Your task to perform on an android device: turn on translation in the chrome app Image 0: 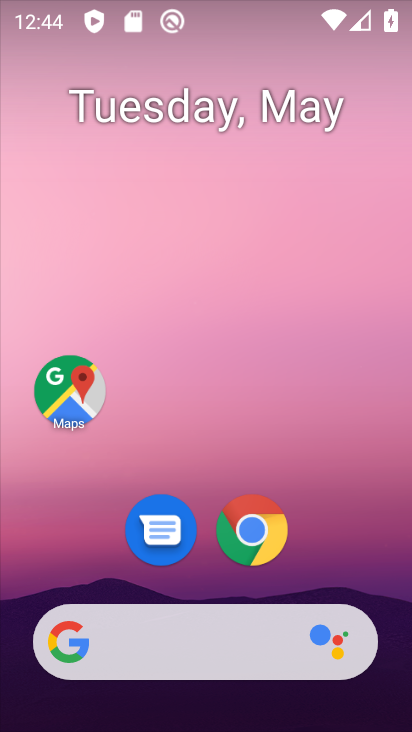
Step 0: click (234, 526)
Your task to perform on an android device: turn on translation in the chrome app Image 1: 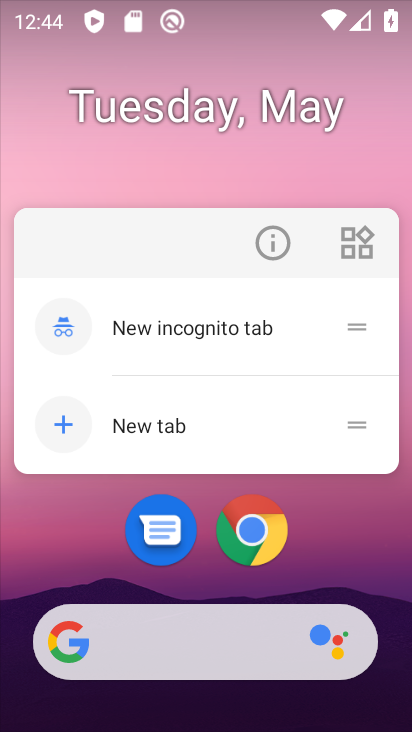
Step 1: click (244, 538)
Your task to perform on an android device: turn on translation in the chrome app Image 2: 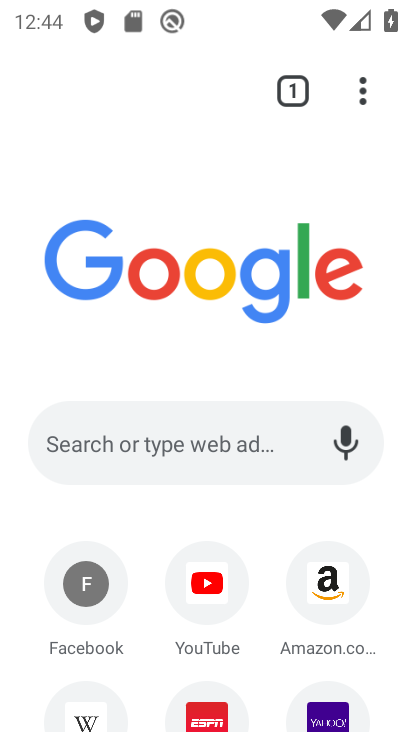
Step 2: click (357, 92)
Your task to perform on an android device: turn on translation in the chrome app Image 3: 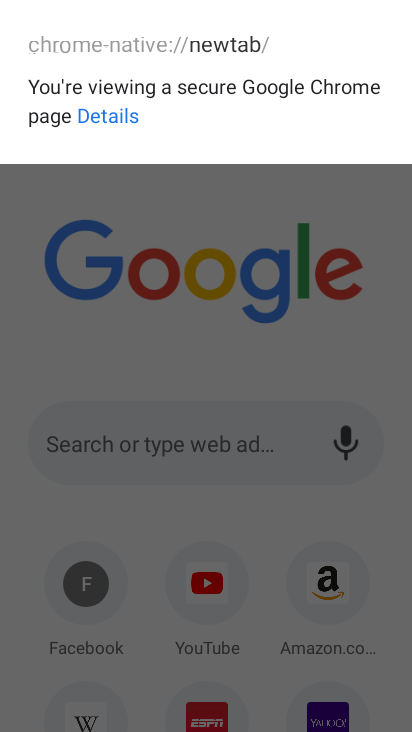
Step 3: click (281, 411)
Your task to perform on an android device: turn on translation in the chrome app Image 4: 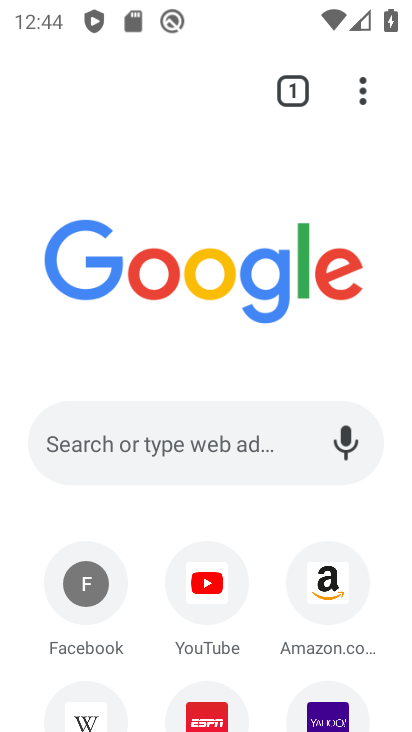
Step 4: click (356, 84)
Your task to perform on an android device: turn on translation in the chrome app Image 5: 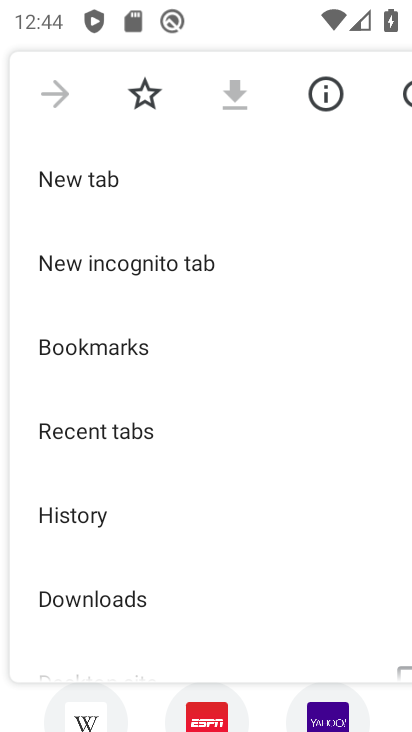
Step 5: drag from (177, 588) to (144, 240)
Your task to perform on an android device: turn on translation in the chrome app Image 6: 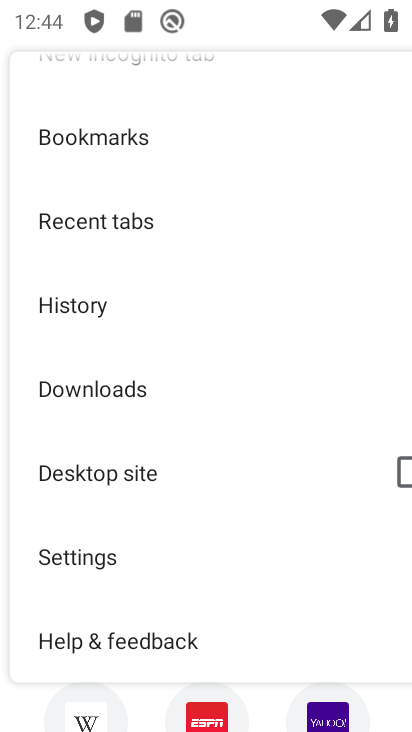
Step 6: click (88, 557)
Your task to perform on an android device: turn on translation in the chrome app Image 7: 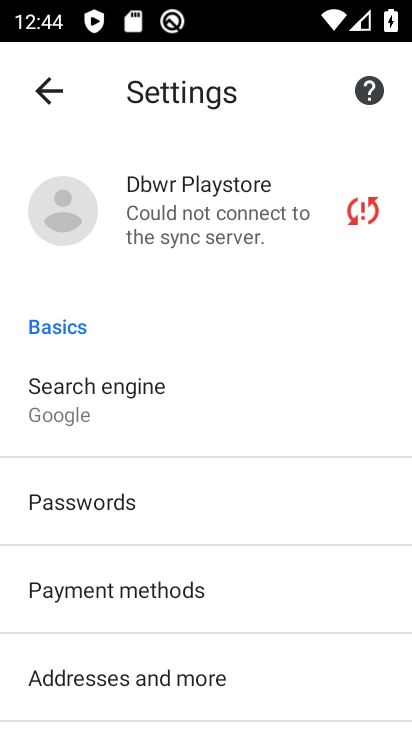
Step 7: drag from (115, 665) to (121, 324)
Your task to perform on an android device: turn on translation in the chrome app Image 8: 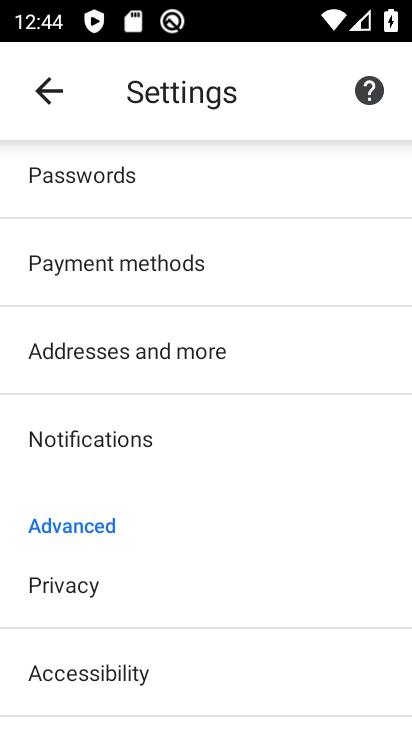
Step 8: drag from (116, 610) to (116, 286)
Your task to perform on an android device: turn on translation in the chrome app Image 9: 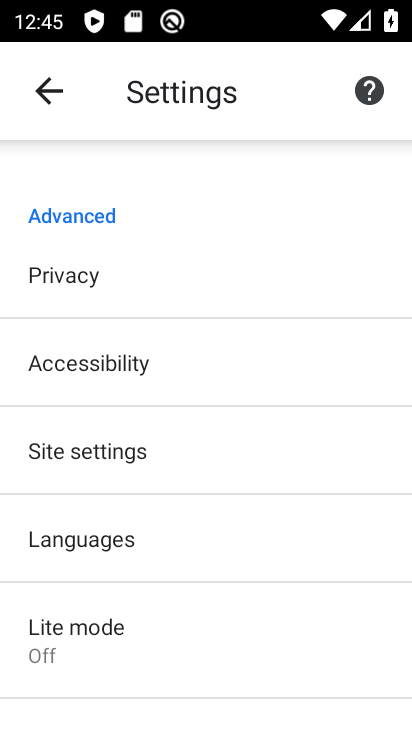
Step 9: click (103, 538)
Your task to perform on an android device: turn on translation in the chrome app Image 10: 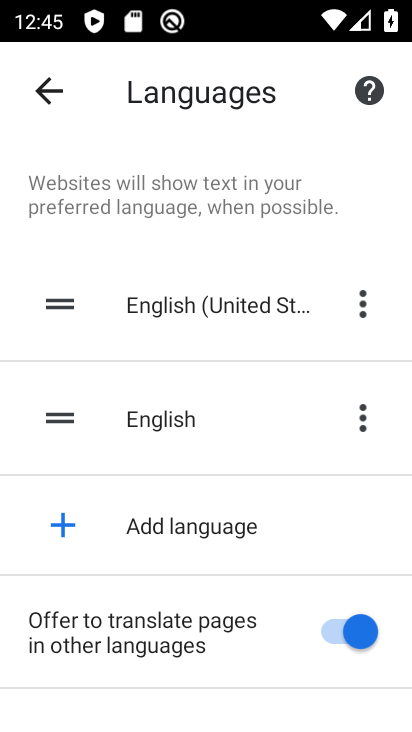
Step 10: task complete